Your task to perform on an android device: change the clock display to digital Image 0: 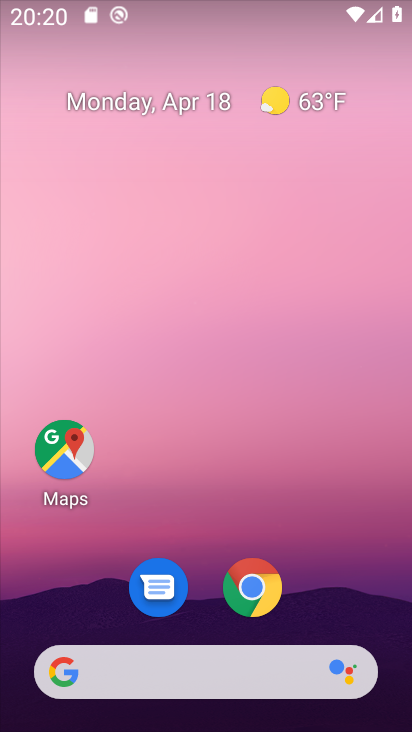
Step 0: drag from (326, 621) to (346, 191)
Your task to perform on an android device: change the clock display to digital Image 1: 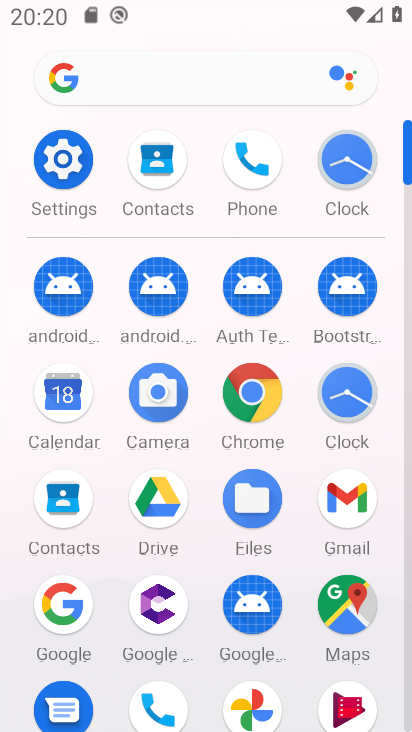
Step 1: click (336, 198)
Your task to perform on an android device: change the clock display to digital Image 2: 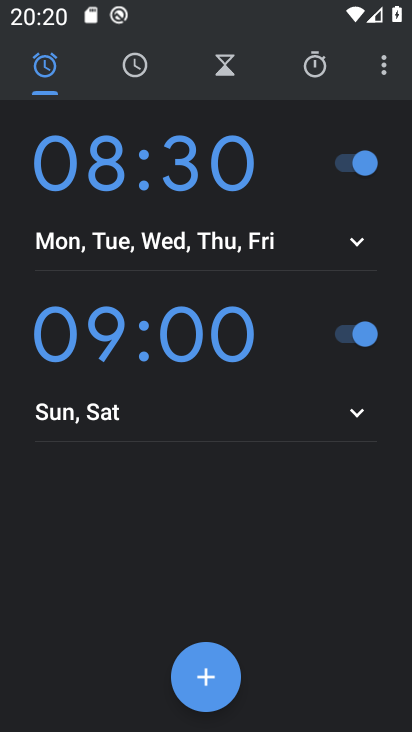
Step 2: click (394, 49)
Your task to perform on an android device: change the clock display to digital Image 3: 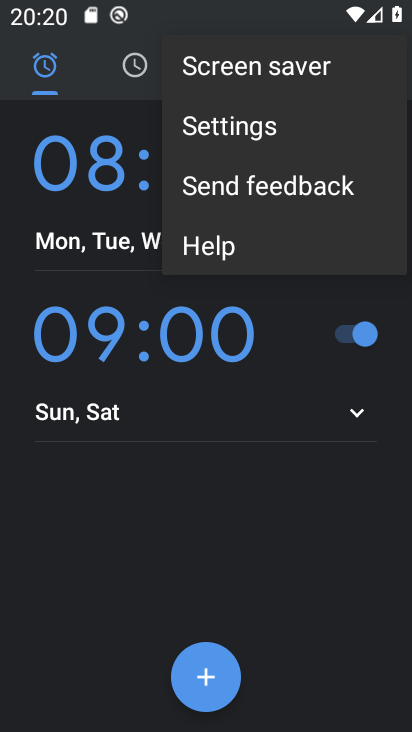
Step 3: click (329, 127)
Your task to perform on an android device: change the clock display to digital Image 4: 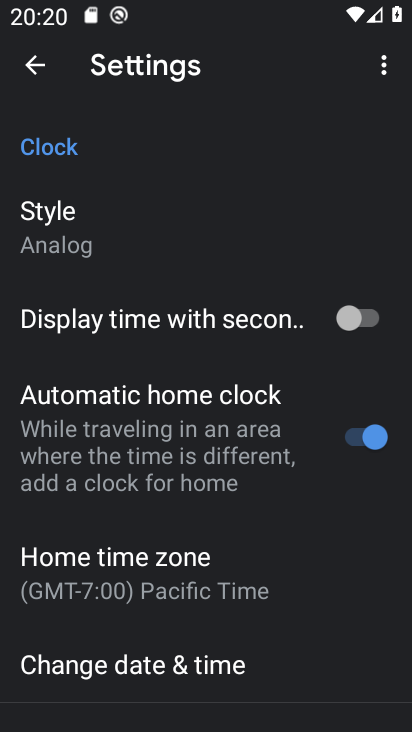
Step 4: click (205, 240)
Your task to perform on an android device: change the clock display to digital Image 5: 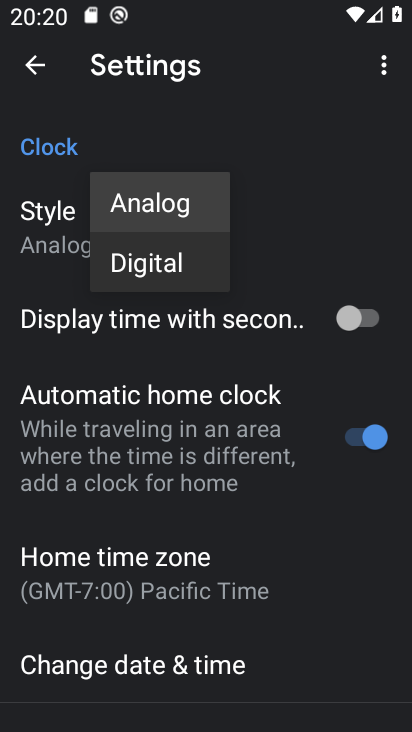
Step 5: click (172, 267)
Your task to perform on an android device: change the clock display to digital Image 6: 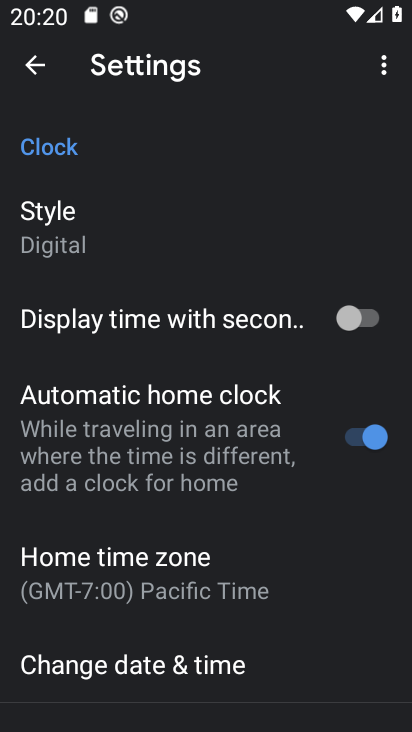
Step 6: task complete